Your task to perform on an android device: Is it going to rain this weekend? Image 0: 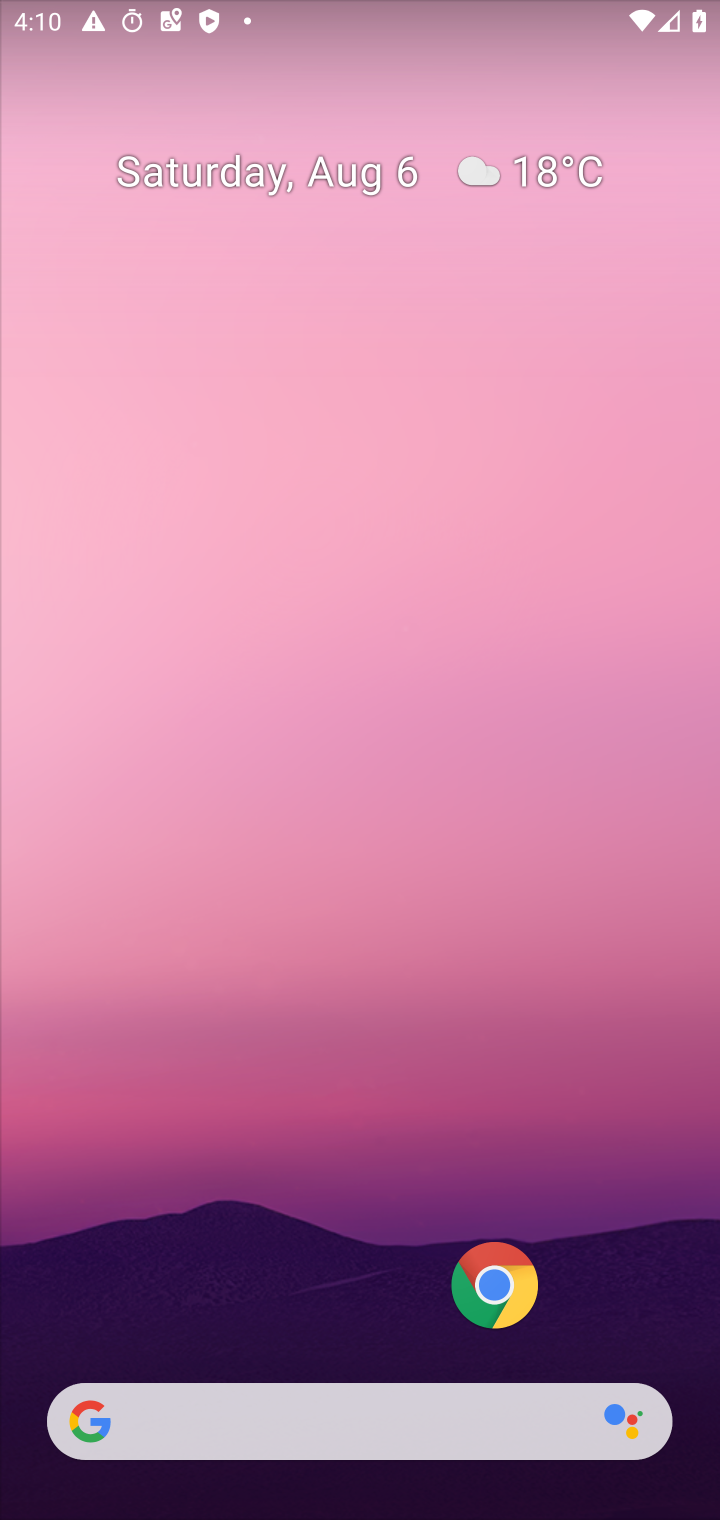
Step 0: press home button
Your task to perform on an android device: Is it going to rain this weekend? Image 1: 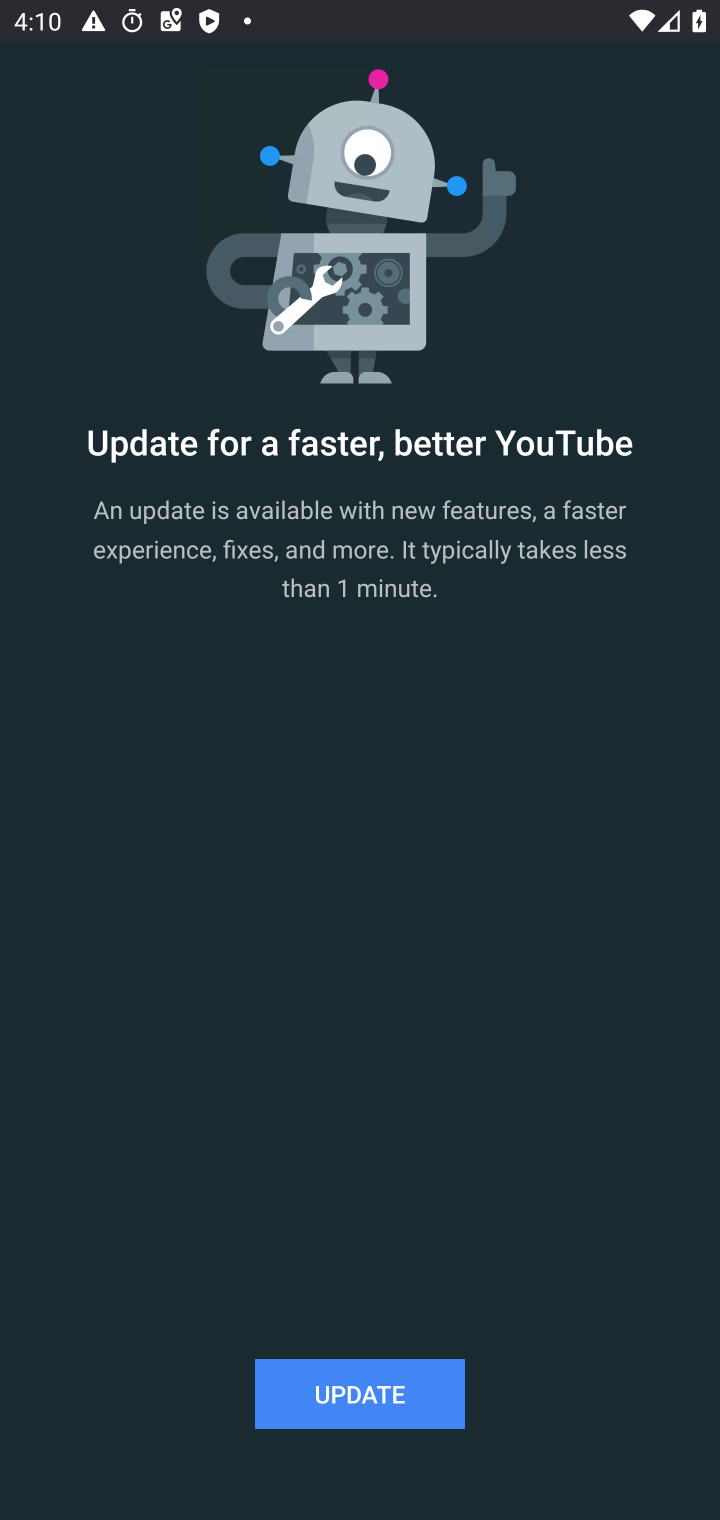
Step 1: press home button
Your task to perform on an android device: Is it going to rain this weekend? Image 2: 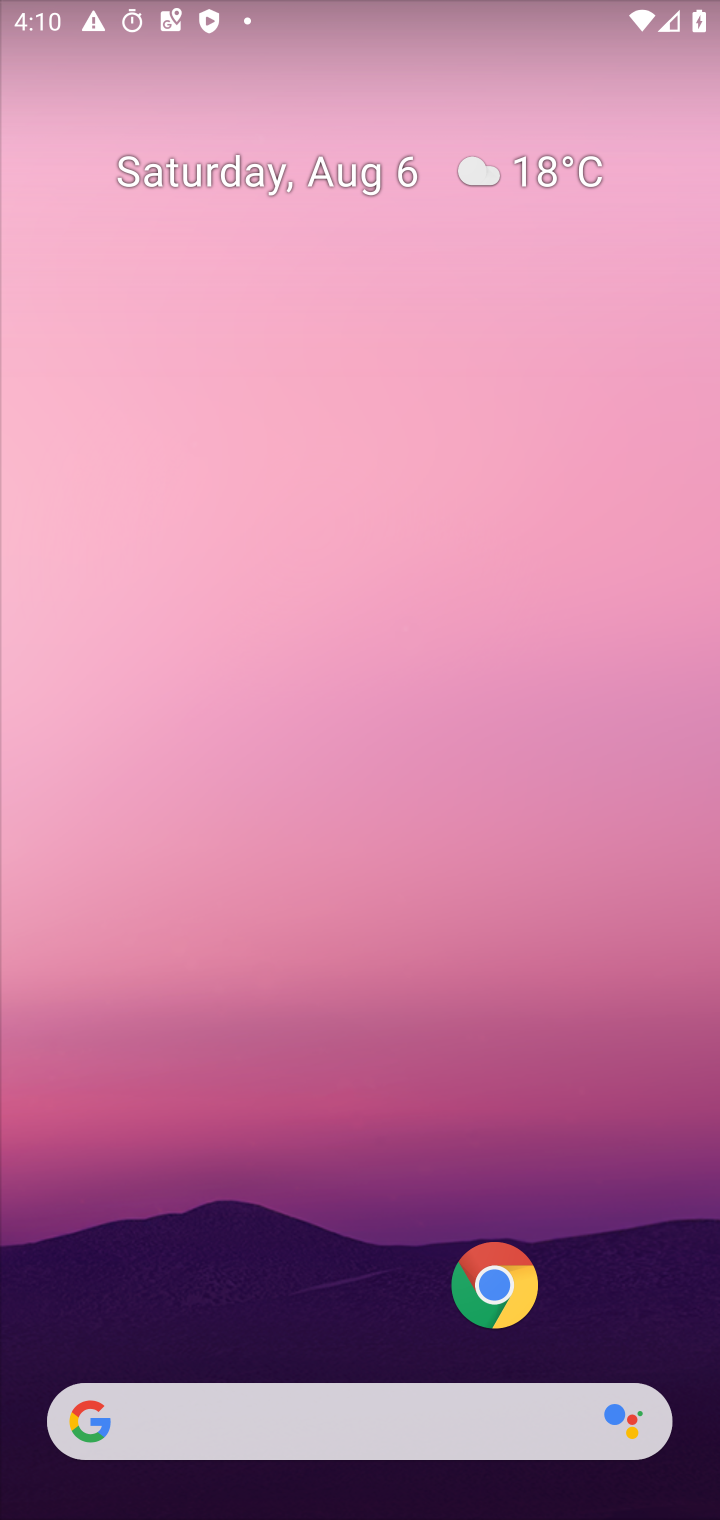
Step 2: click (553, 162)
Your task to perform on an android device: Is it going to rain this weekend? Image 3: 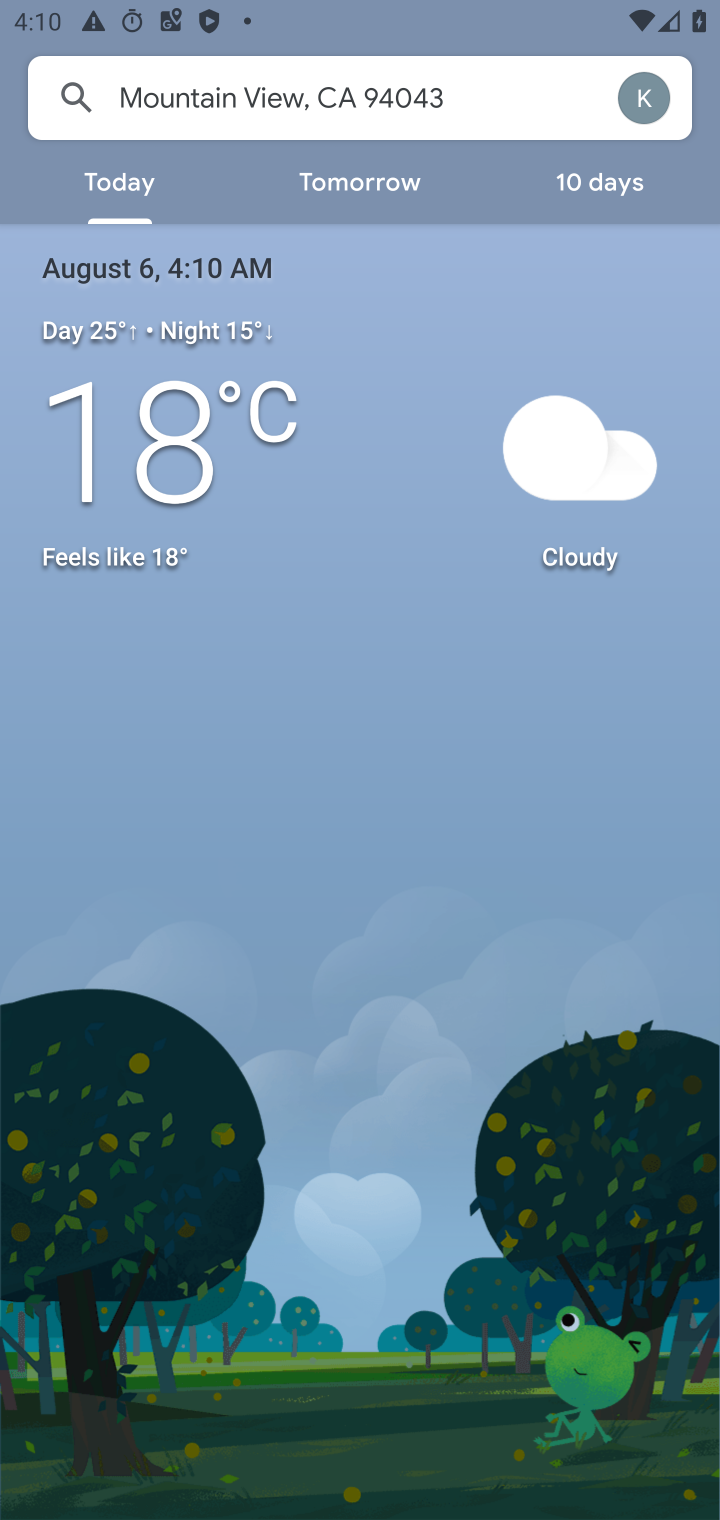
Step 3: click (606, 202)
Your task to perform on an android device: Is it going to rain this weekend? Image 4: 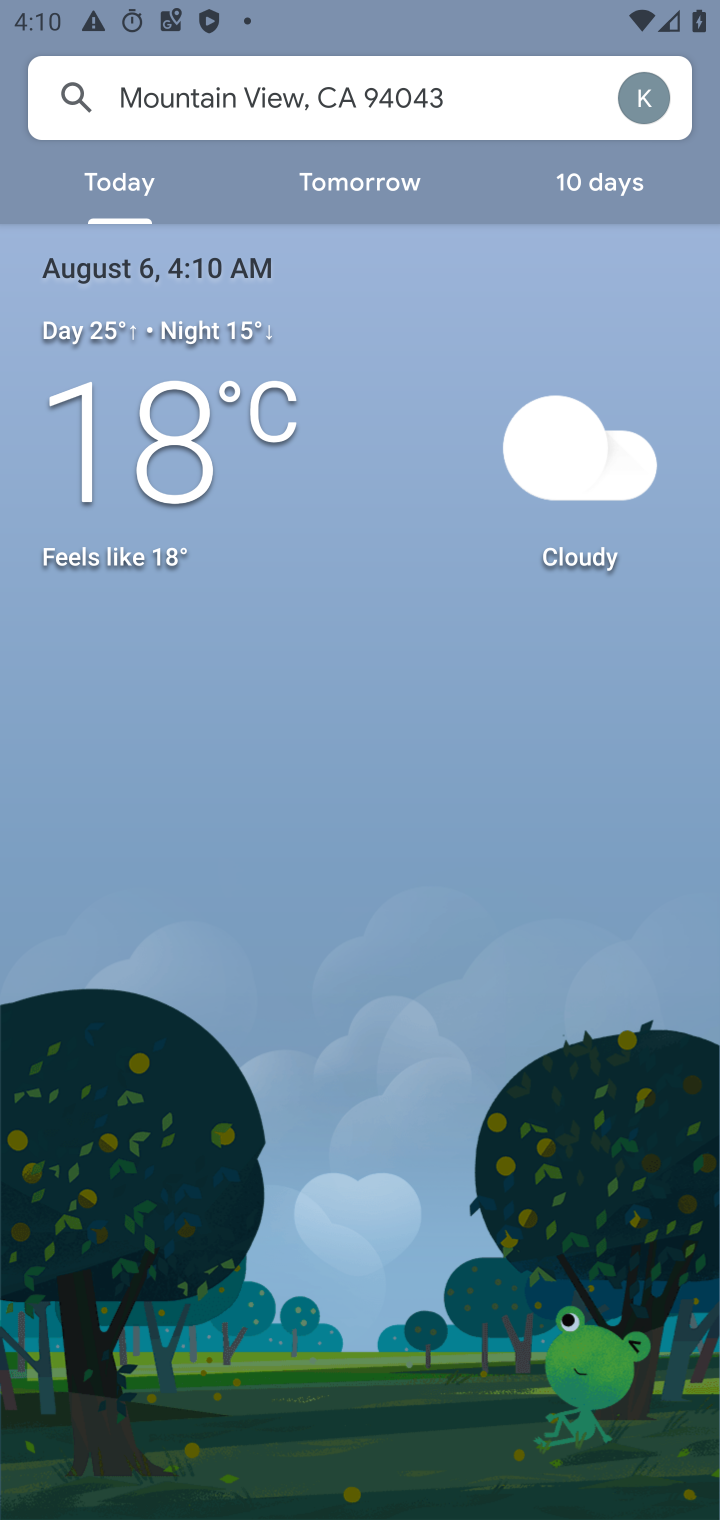
Step 4: click (587, 194)
Your task to perform on an android device: Is it going to rain this weekend? Image 5: 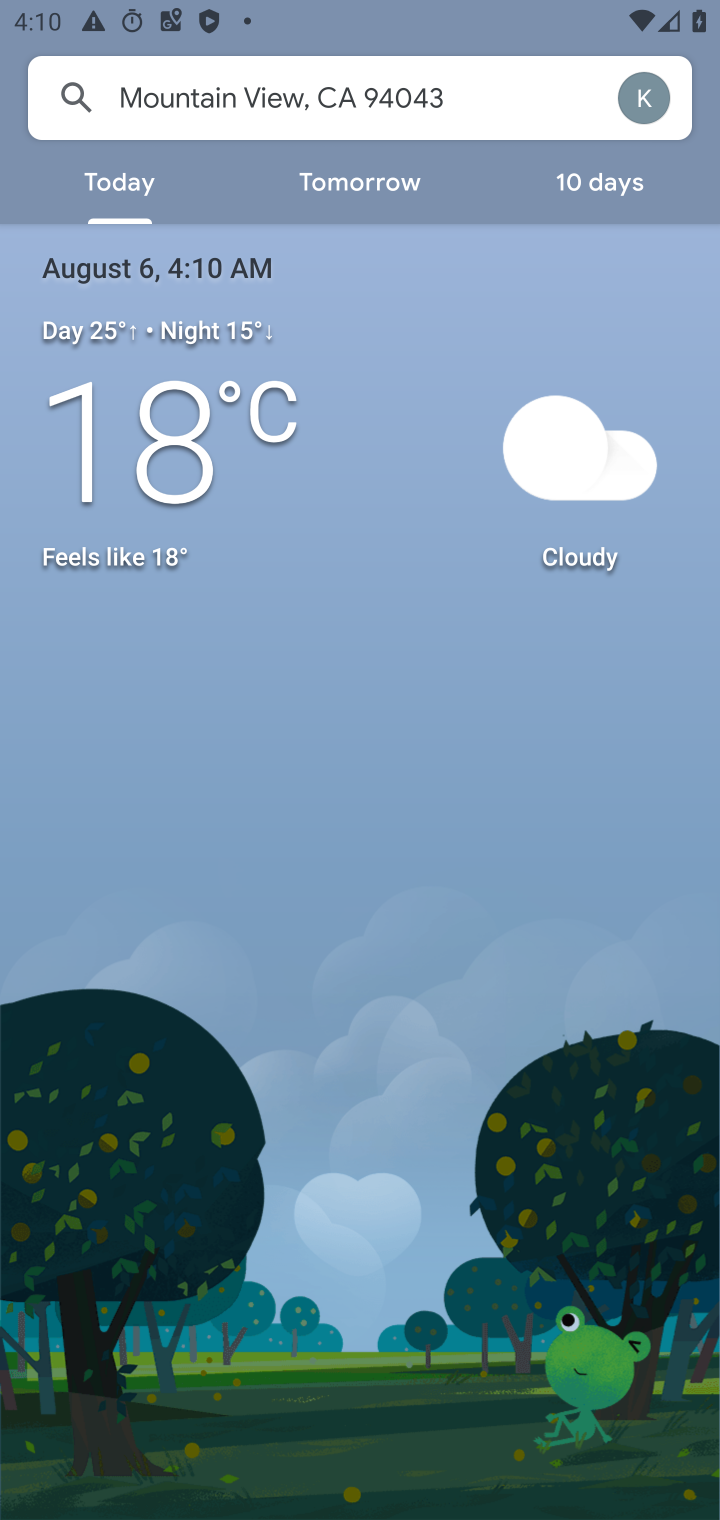
Step 5: click (587, 196)
Your task to perform on an android device: Is it going to rain this weekend? Image 6: 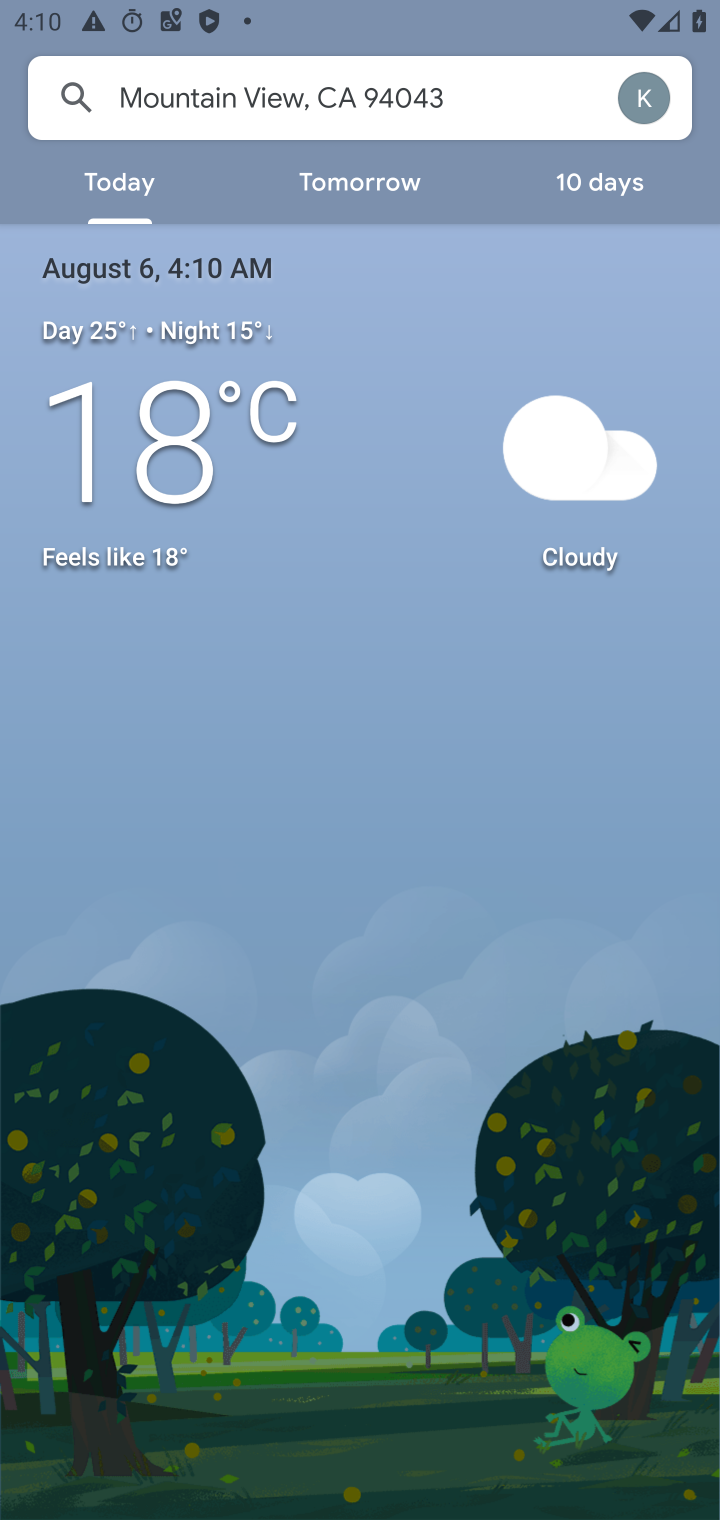
Step 6: click (588, 199)
Your task to perform on an android device: Is it going to rain this weekend? Image 7: 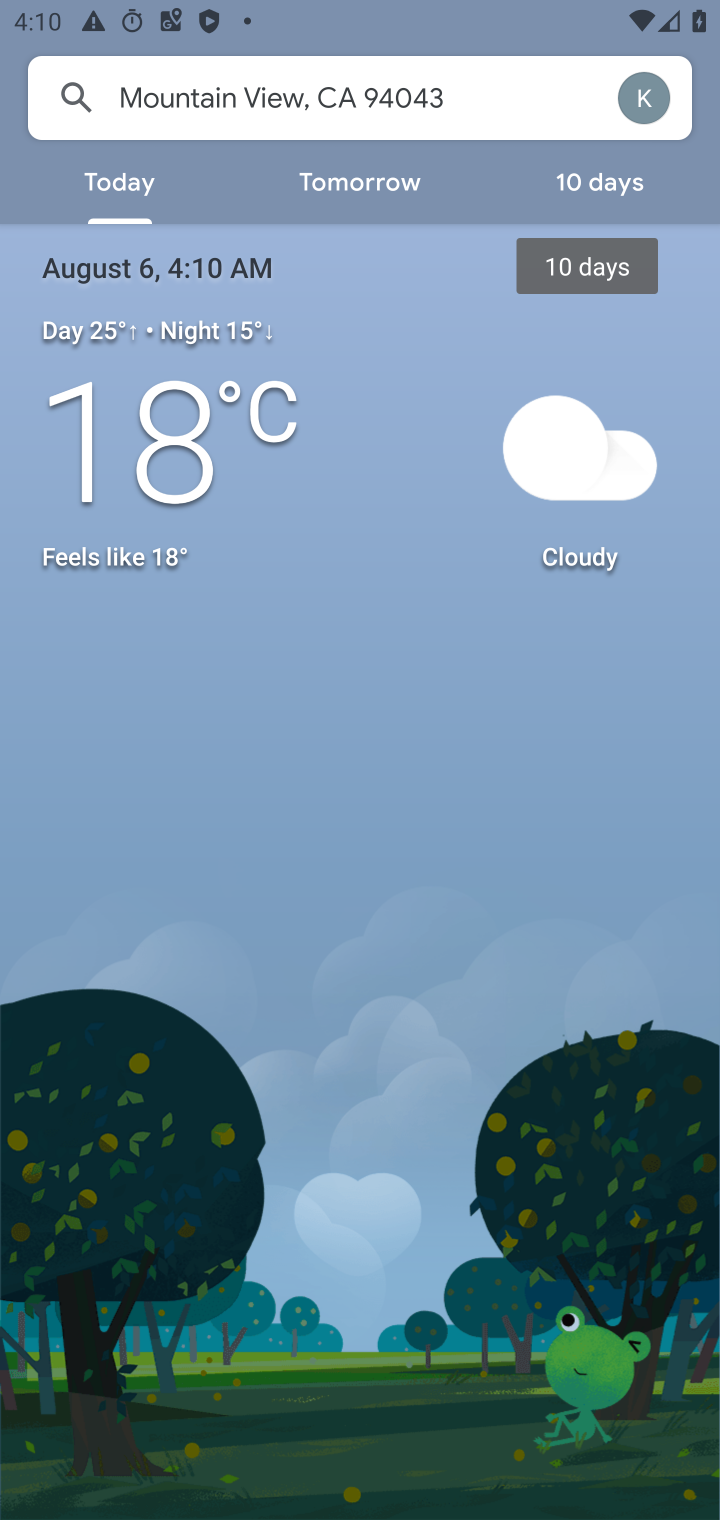
Step 7: drag from (642, 834) to (5, 878)
Your task to perform on an android device: Is it going to rain this weekend? Image 8: 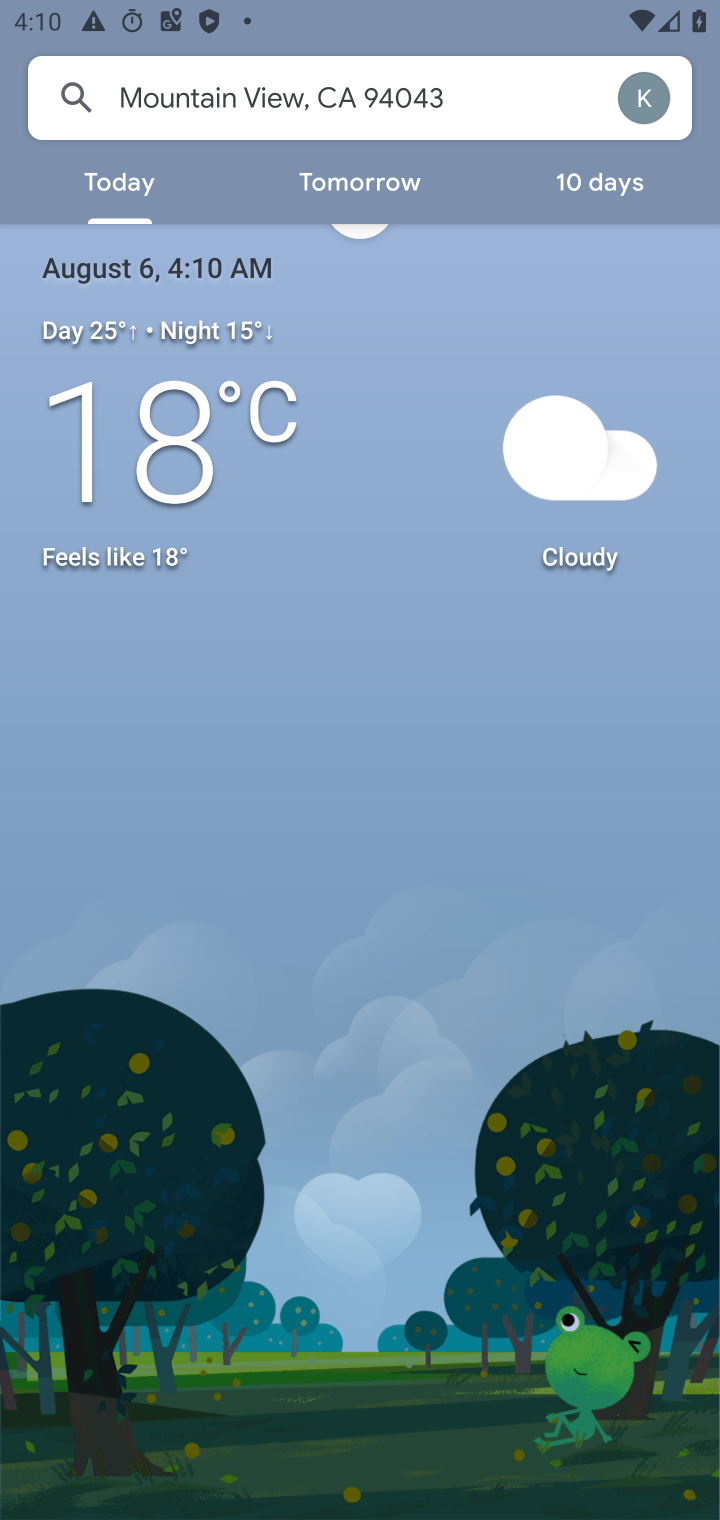
Step 8: drag from (474, 879) to (497, 385)
Your task to perform on an android device: Is it going to rain this weekend? Image 9: 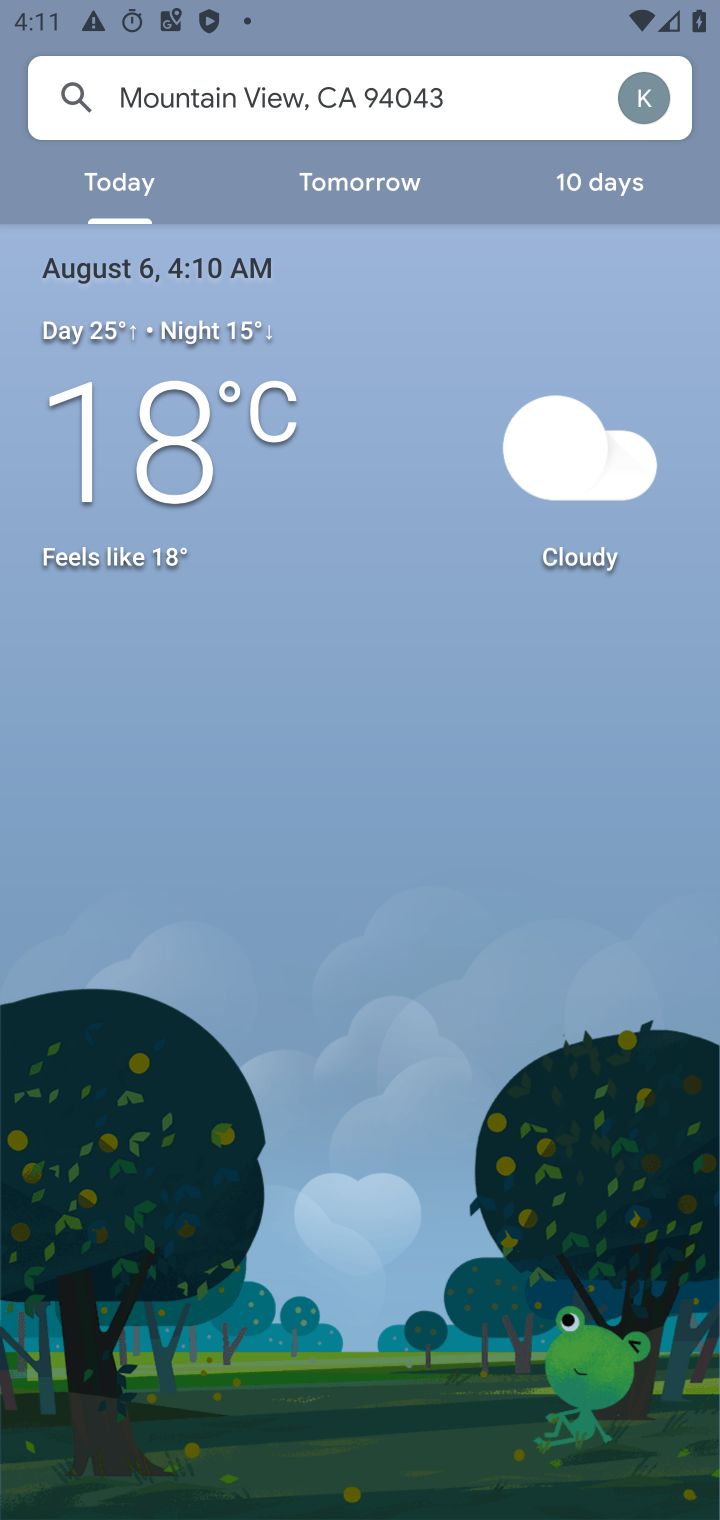
Step 9: drag from (426, 1248) to (435, 314)
Your task to perform on an android device: Is it going to rain this weekend? Image 10: 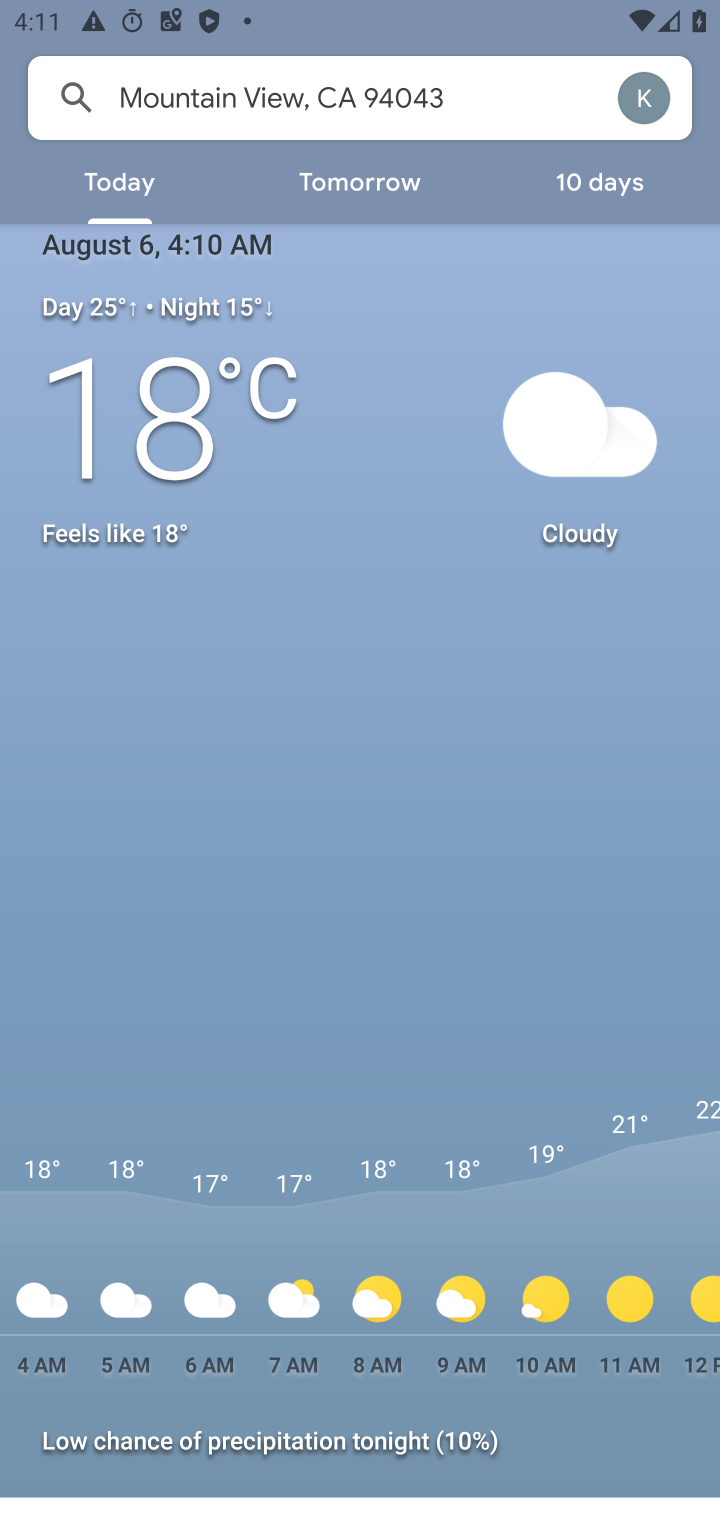
Step 10: drag from (666, 999) to (2, 1051)
Your task to perform on an android device: Is it going to rain this weekend? Image 11: 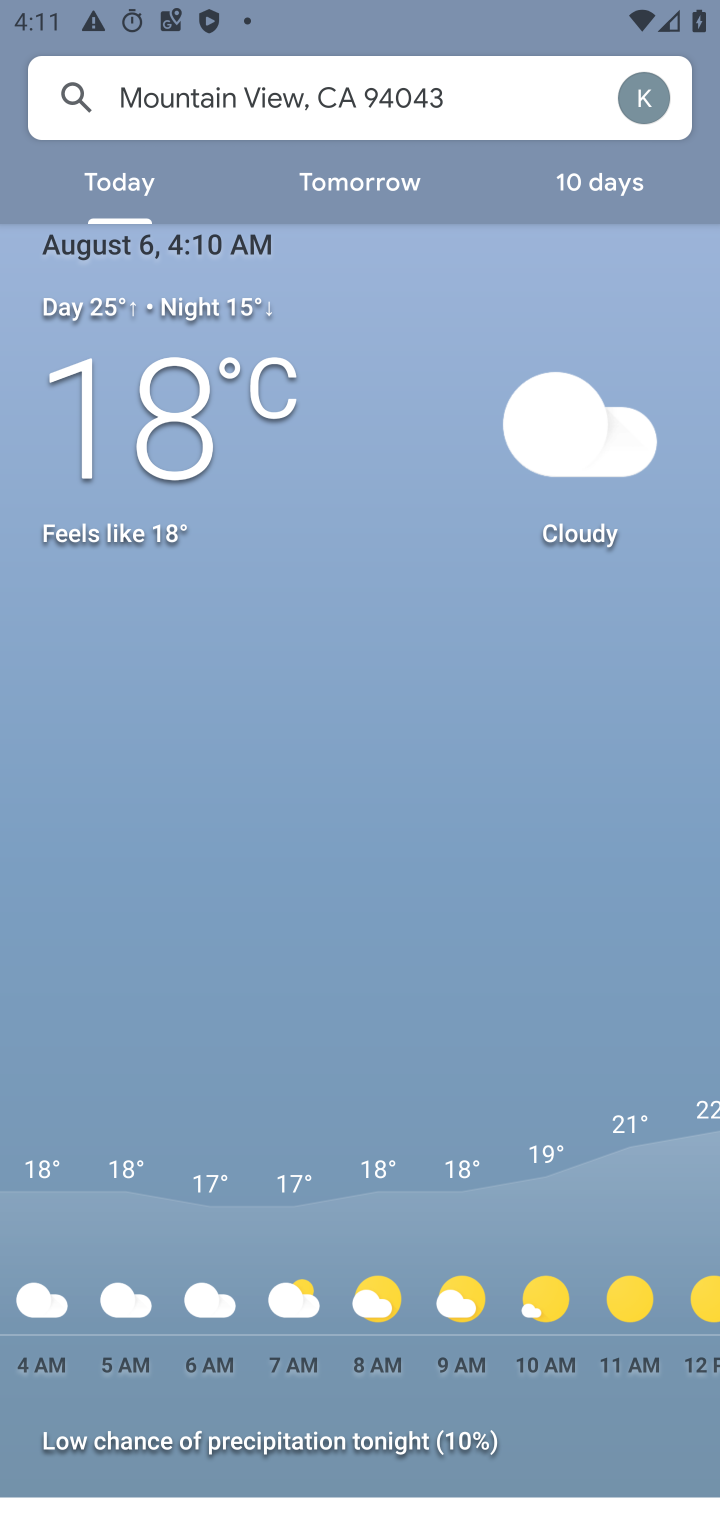
Step 11: drag from (692, 1024) to (5, 1053)
Your task to perform on an android device: Is it going to rain this weekend? Image 12: 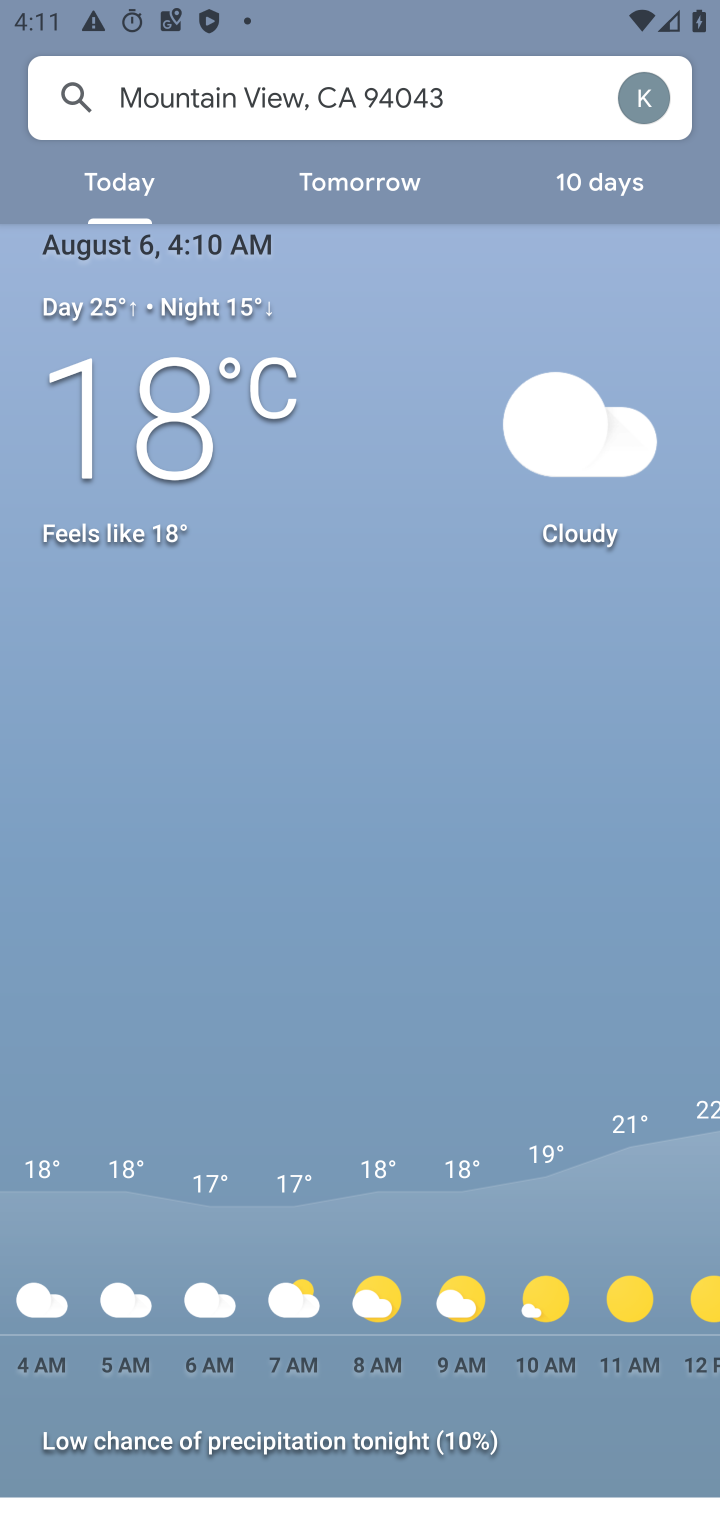
Step 12: drag from (687, 961) to (0, 991)
Your task to perform on an android device: Is it going to rain this weekend? Image 13: 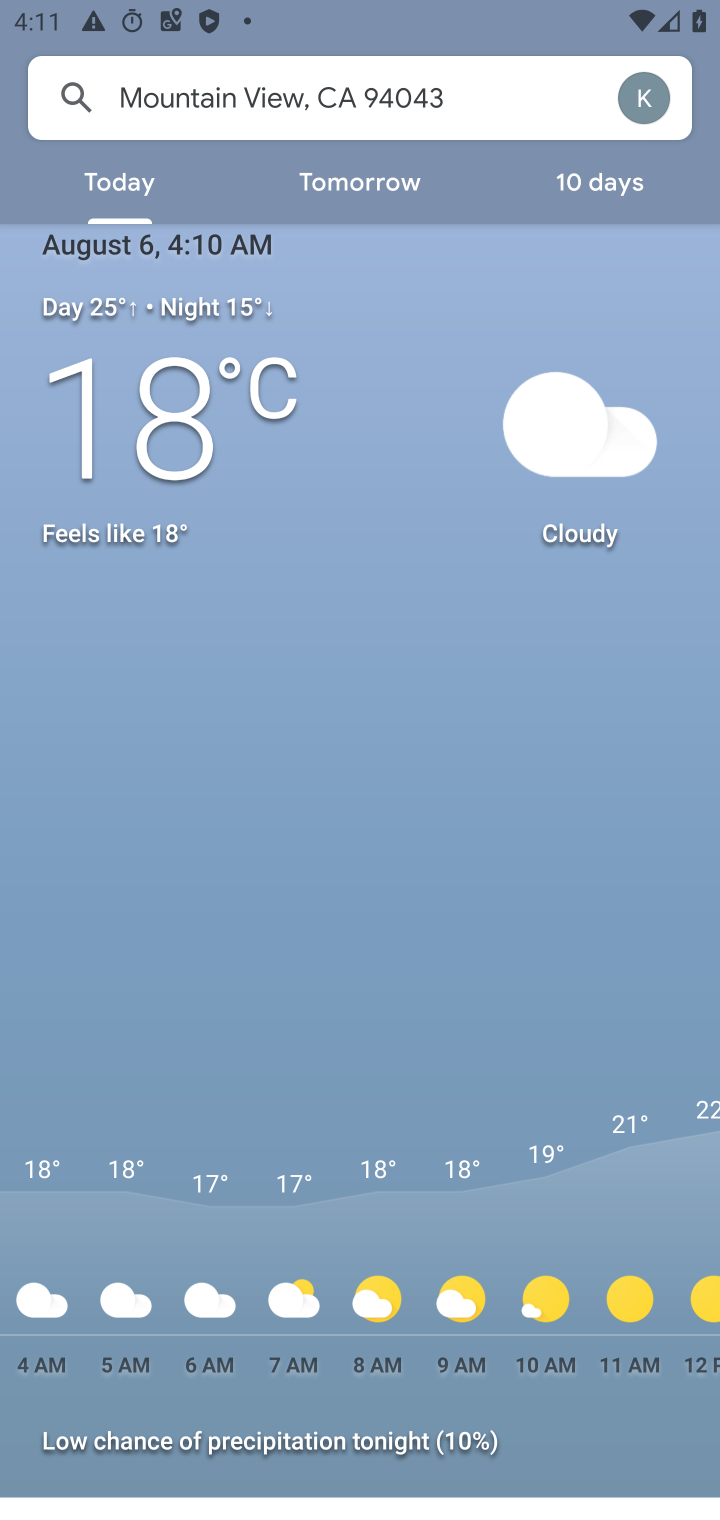
Step 13: drag from (629, 845) to (54, 880)
Your task to perform on an android device: Is it going to rain this weekend? Image 14: 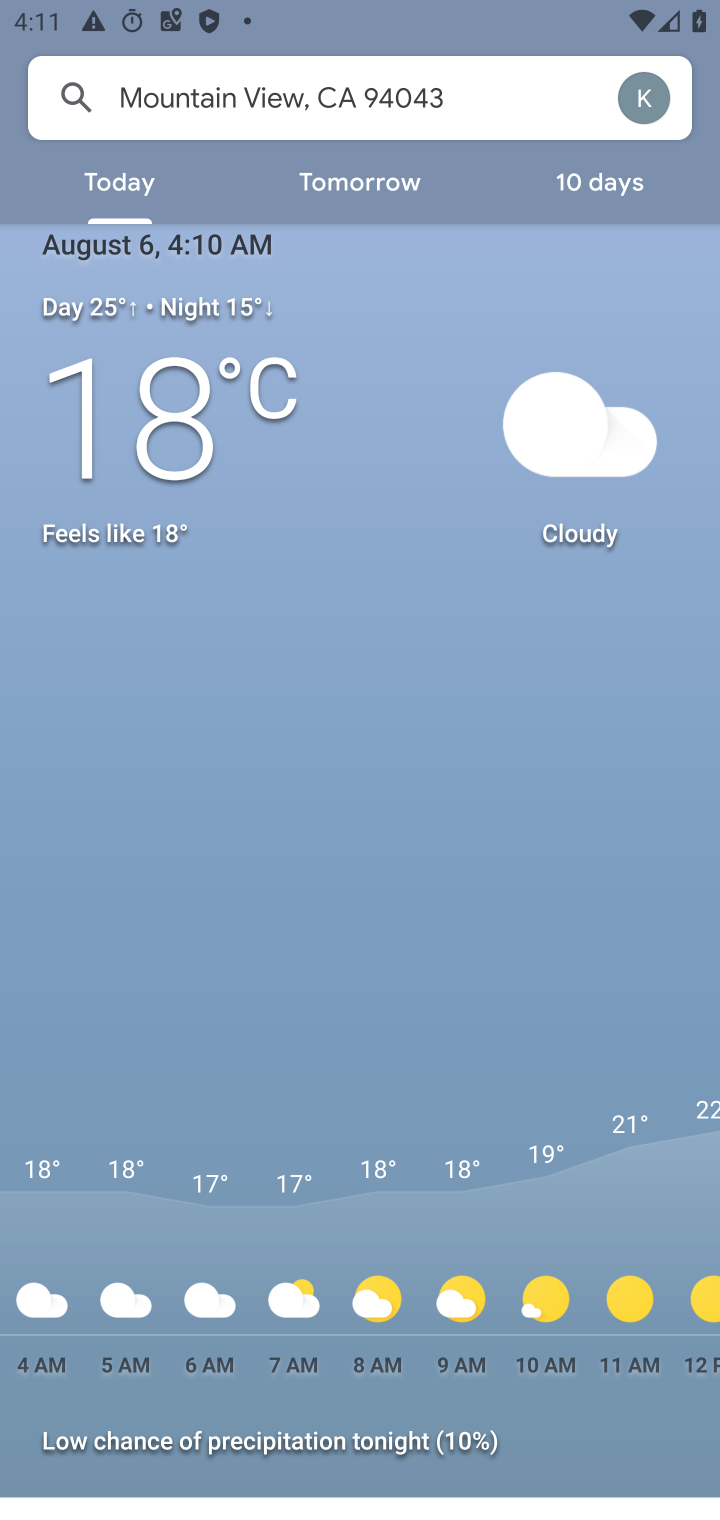
Step 14: drag from (718, 937) to (21, 797)
Your task to perform on an android device: Is it going to rain this weekend? Image 15: 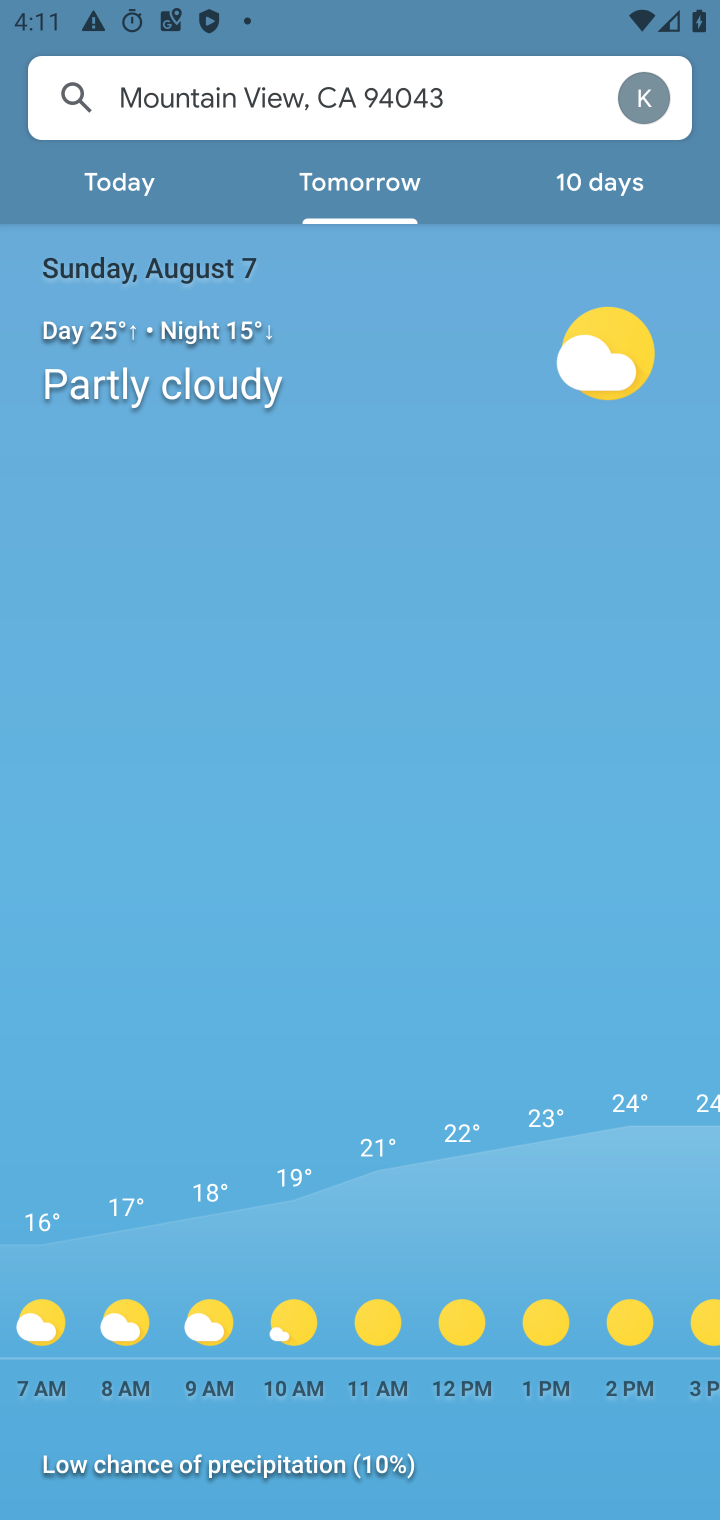
Step 15: drag from (714, 787) to (5, 879)
Your task to perform on an android device: Is it going to rain this weekend? Image 16: 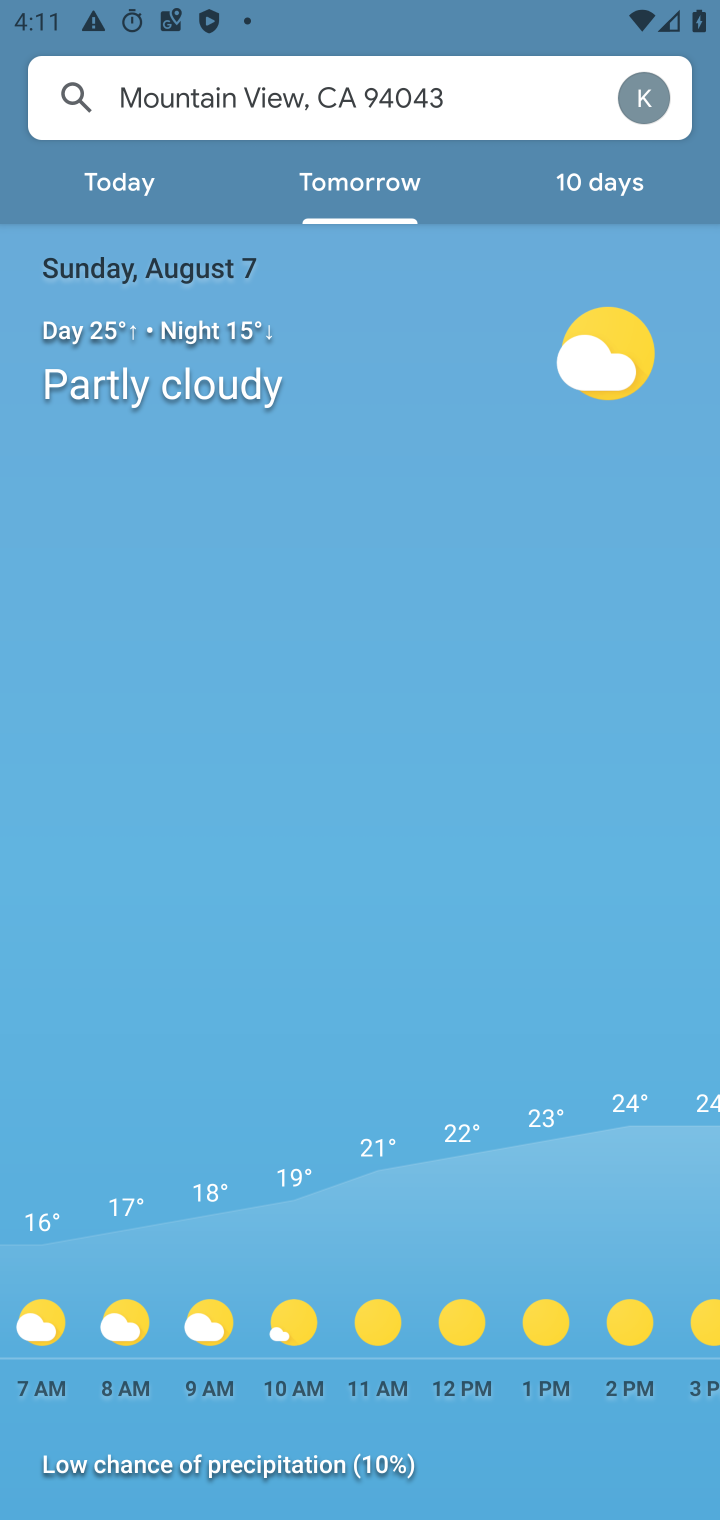
Step 16: drag from (695, 1024) to (0, 1043)
Your task to perform on an android device: Is it going to rain this weekend? Image 17: 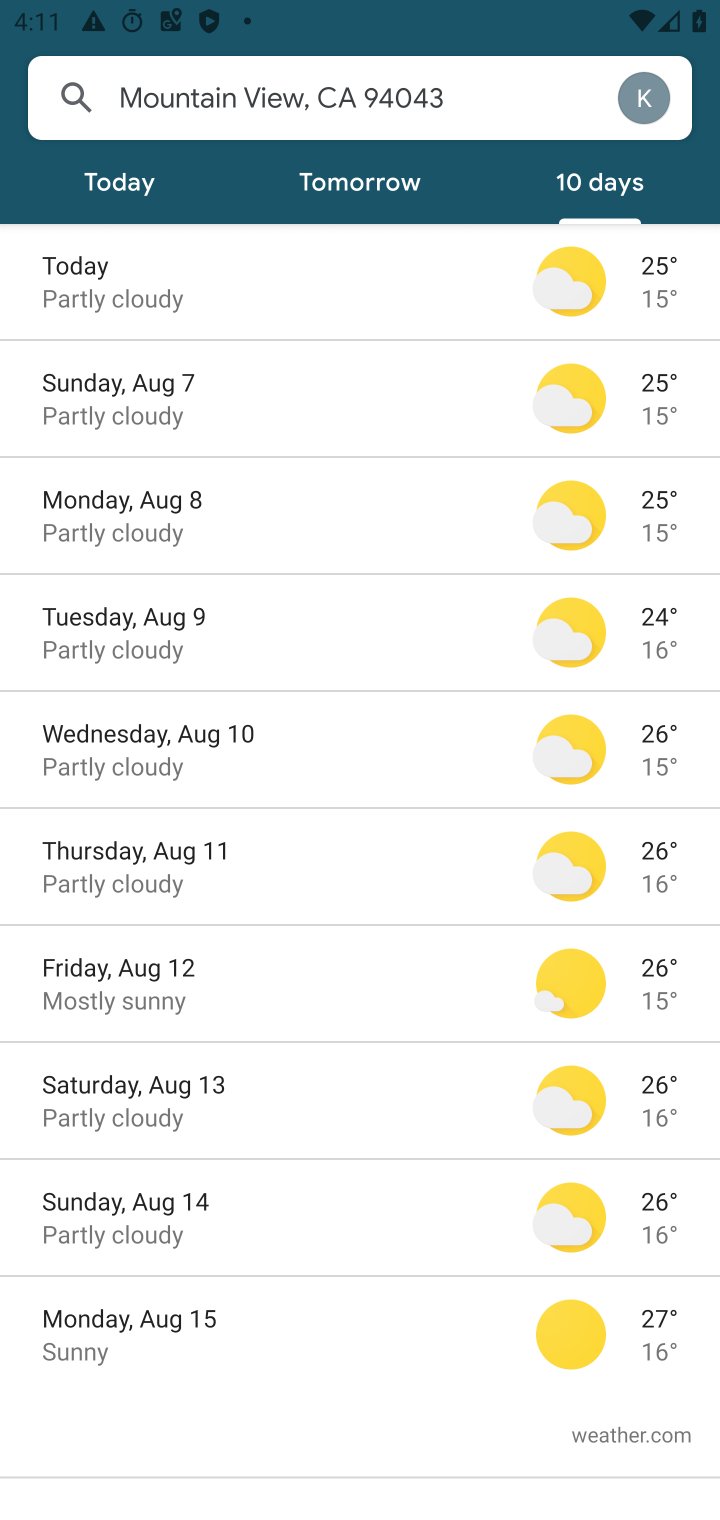
Step 17: click (195, 392)
Your task to perform on an android device: Is it going to rain this weekend? Image 18: 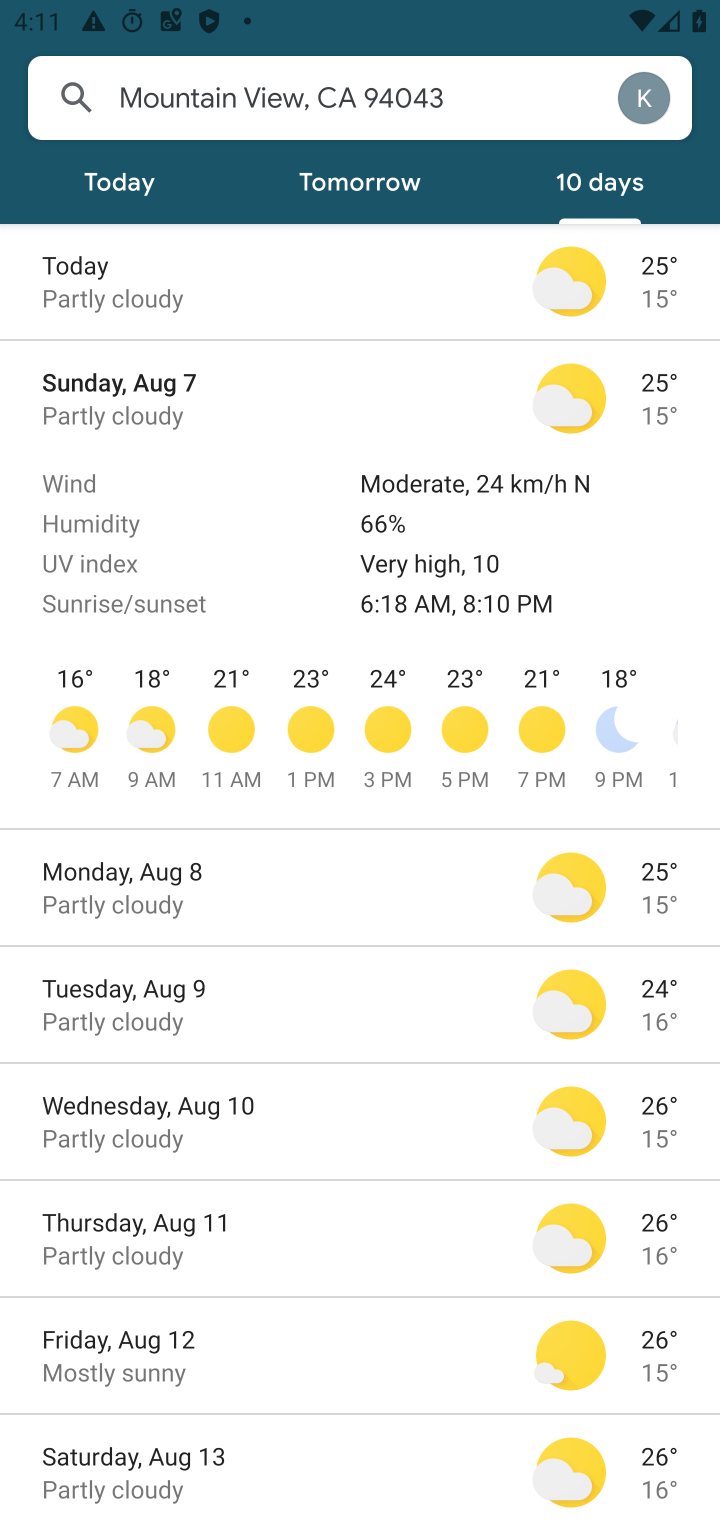
Step 18: task complete